Your task to perform on an android device: Open the web browser Image 0: 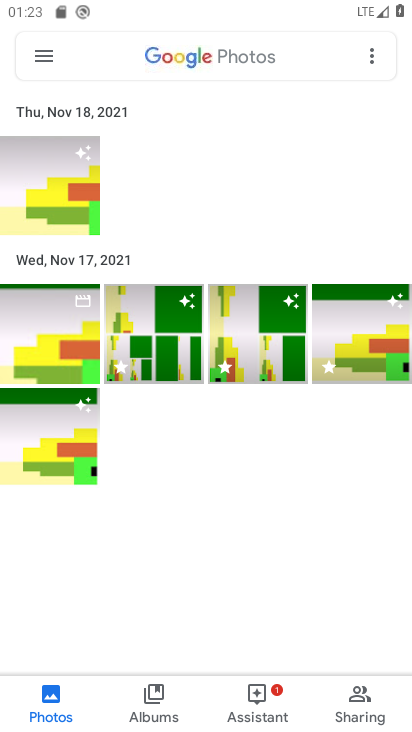
Step 0: press home button
Your task to perform on an android device: Open the web browser Image 1: 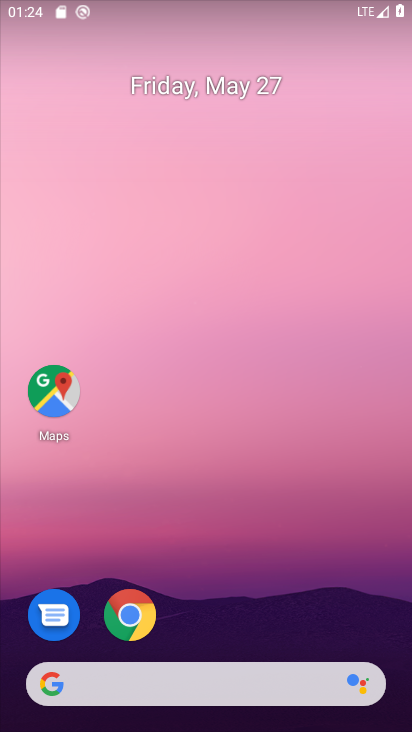
Step 1: drag from (324, 588) to (371, 202)
Your task to perform on an android device: Open the web browser Image 2: 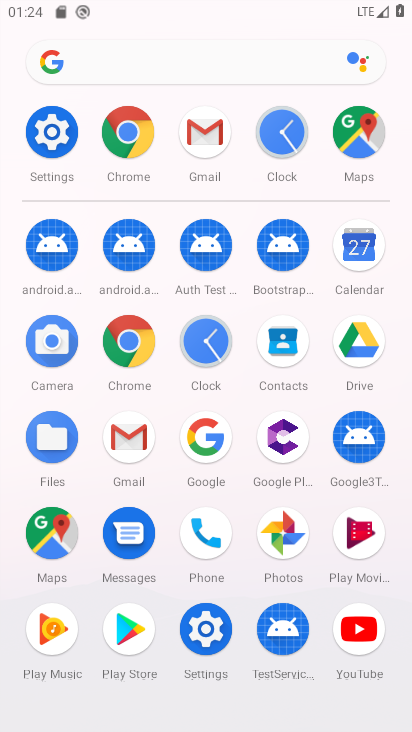
Step 2: click (122, 356)
Your task to perform on an android device: Open the web browser Image 3: 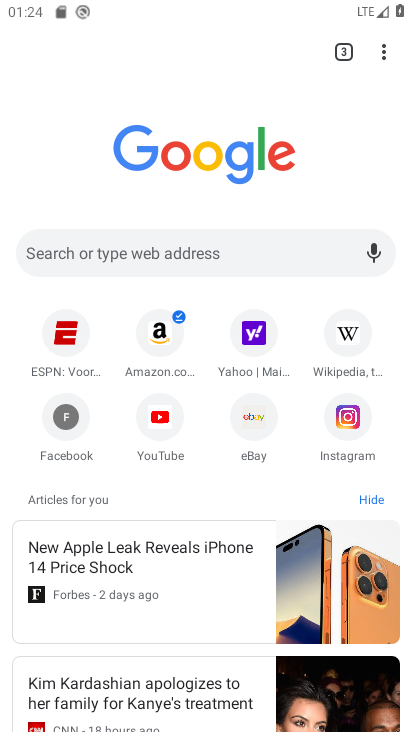
Step 3: task complete